Your task to perform on an android device: Search for pizza restaurants on Maps Image 0: 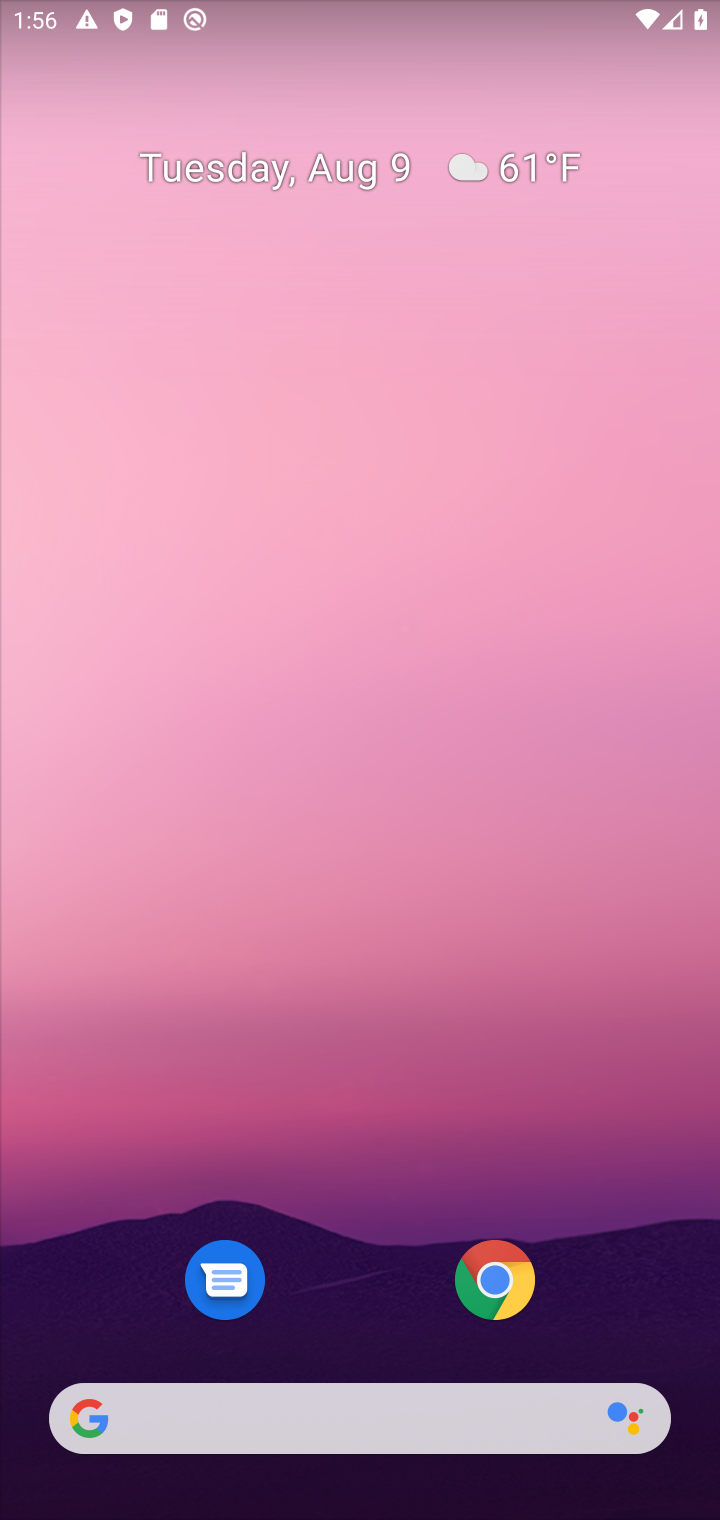
Step 0: press home button
Your task to perform on an android device: Search for pizza restaurants on Maps Image 1: 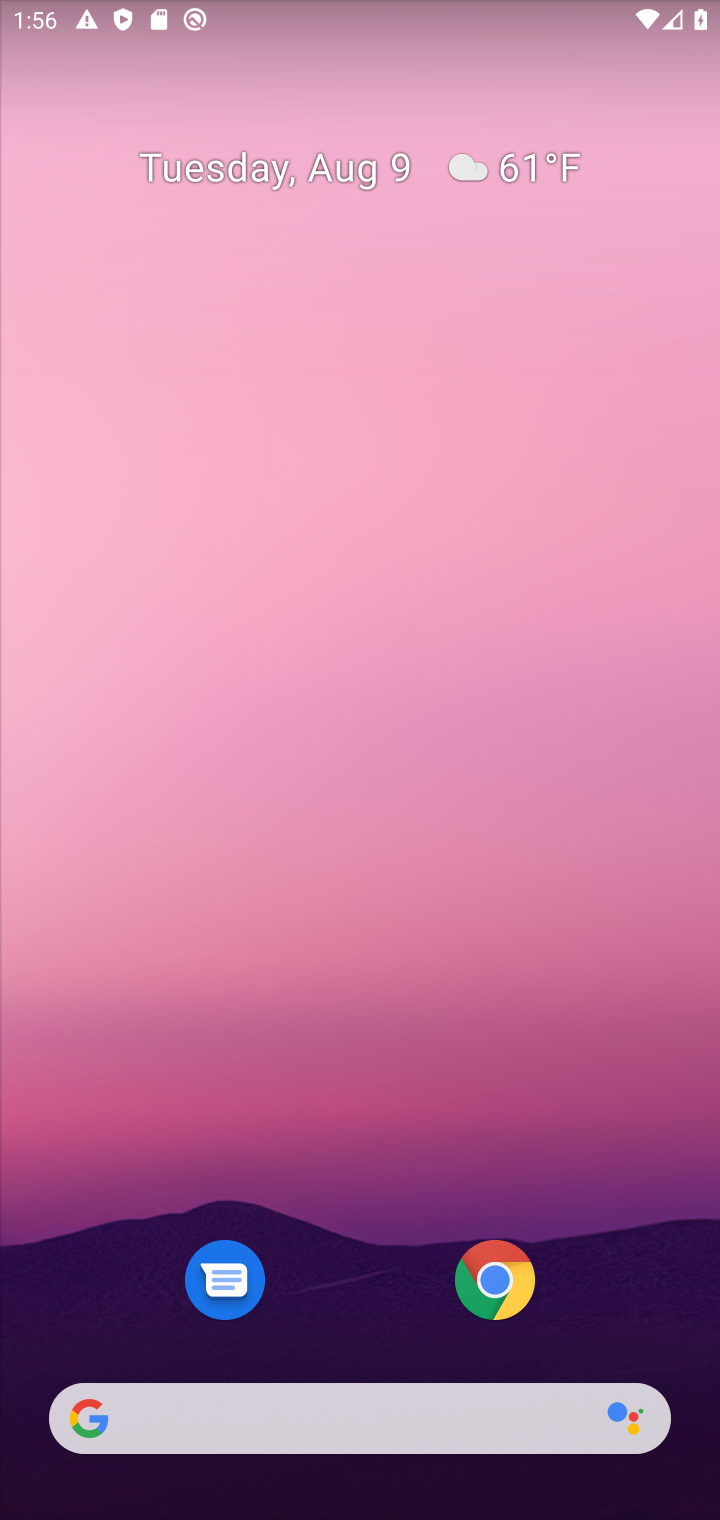
Step 1: drag from (268, 1417) to (482, 228)
Your task to perform on an android device: Search for pizza restaurants on Maps Image 2: 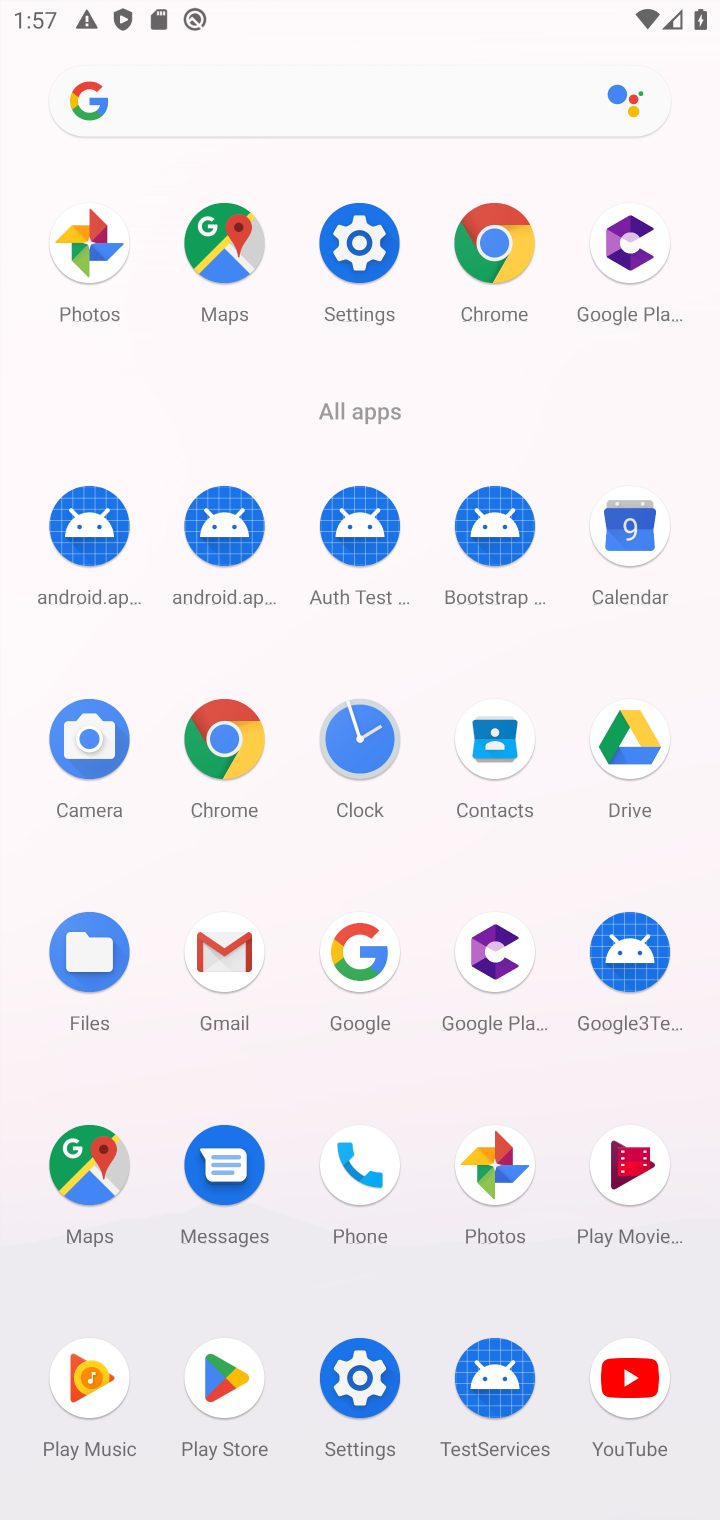
Step 2: click (219, 240)
Your task to perform on an android device: Search for pizza restaurants on Maps Image 3: 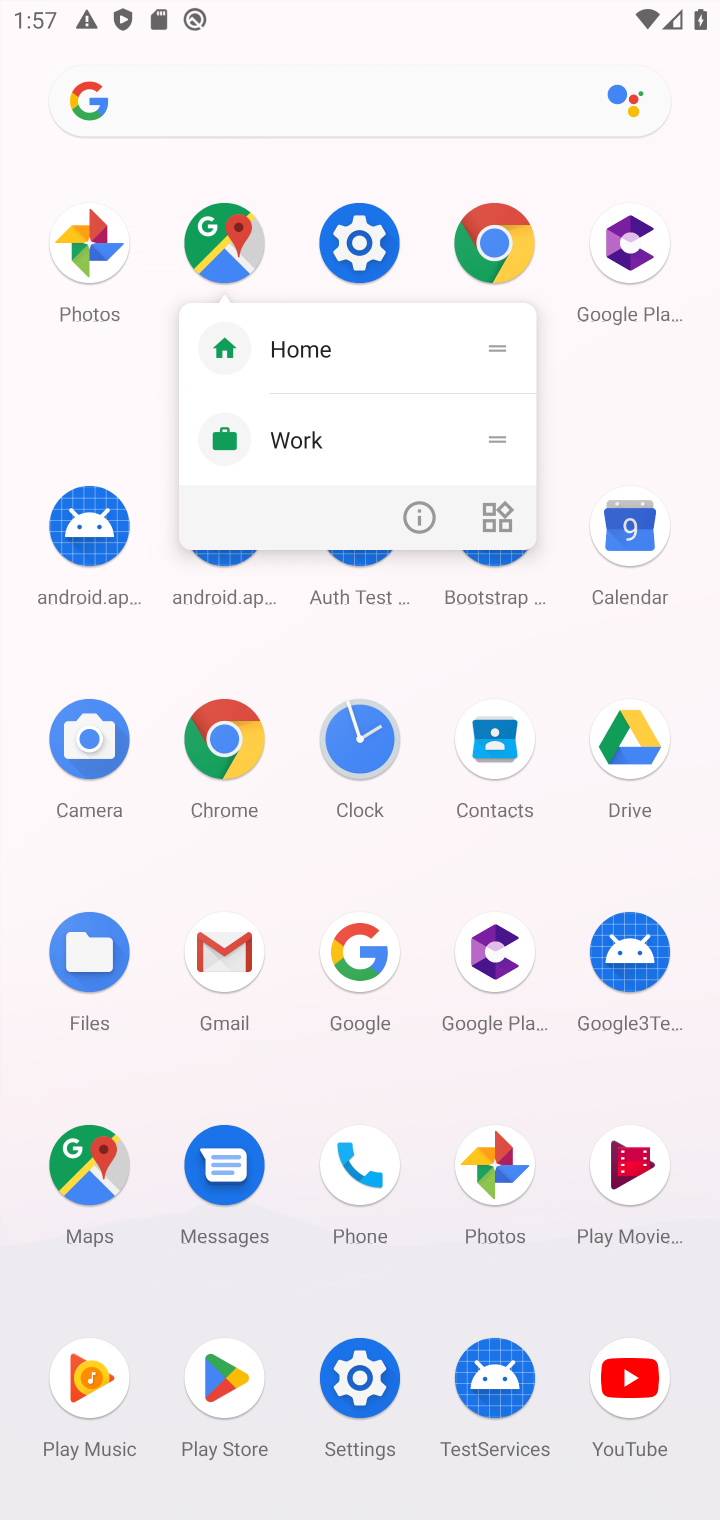
Step 3: click (219, 240)
Your task to perform on an android device: Search for pizza restaurants on Maps Image 4: 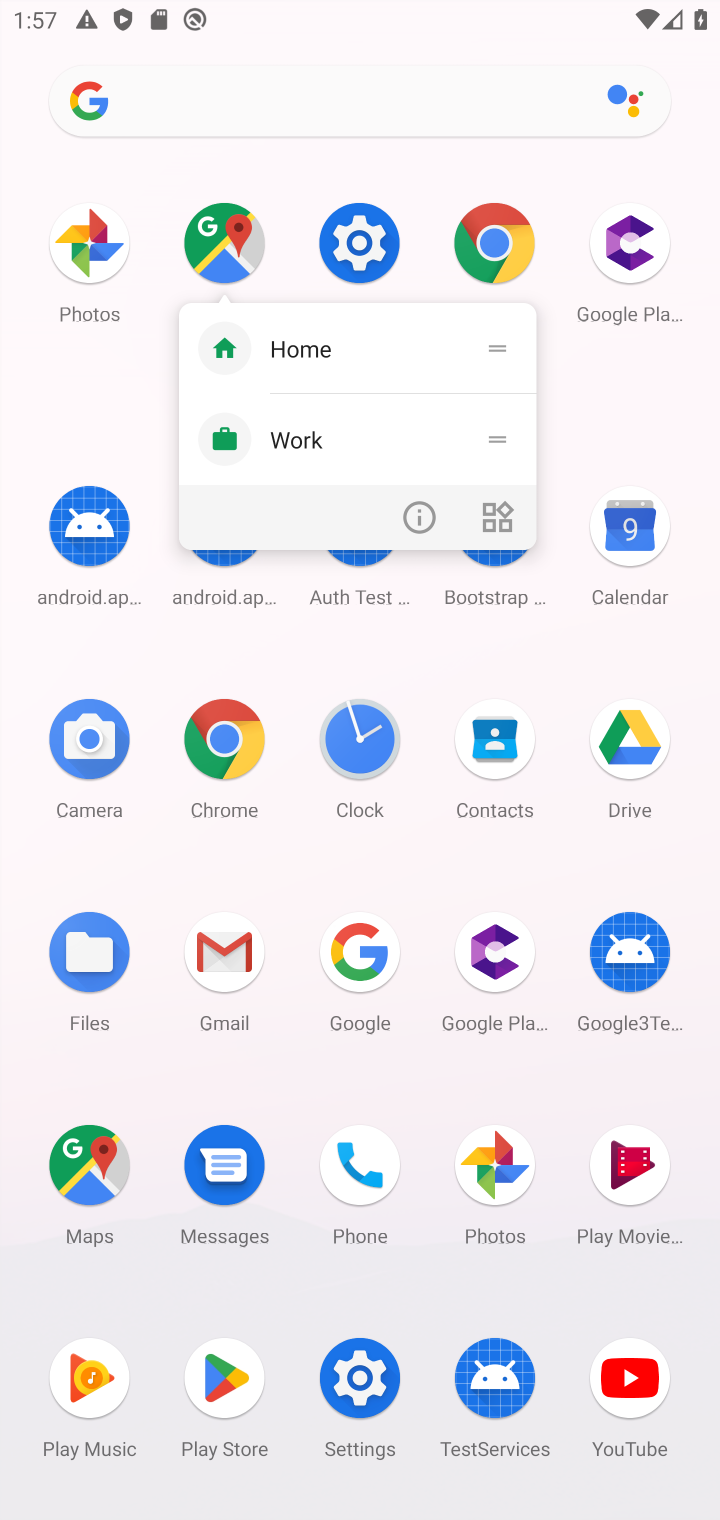
Step 4: click (219, 238)
Your task to perform on an android device: Search for pizza restaurants on Maps Image 5: 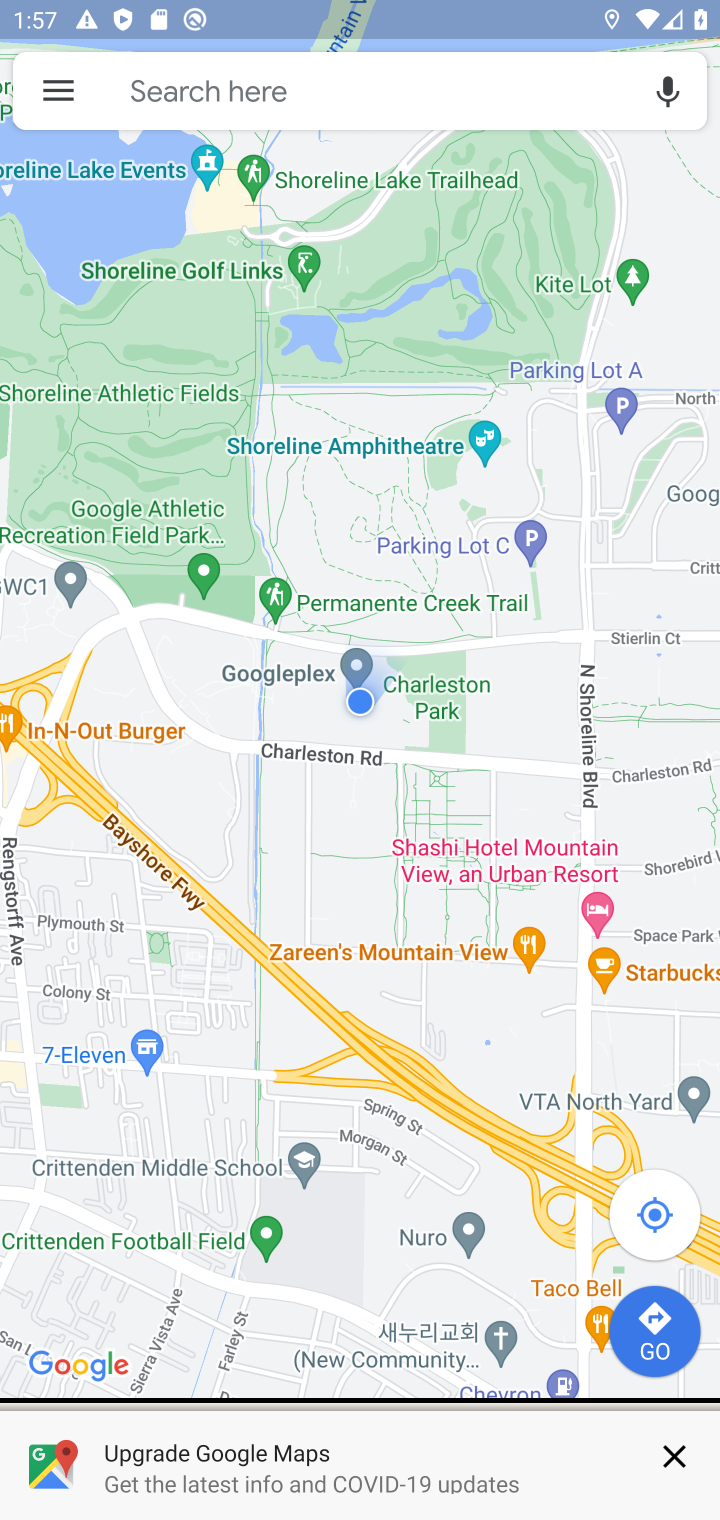
Step 5: click (320, 88)
Your task to perform on an android device: Search for pizza restaurants on Maps Image 6: 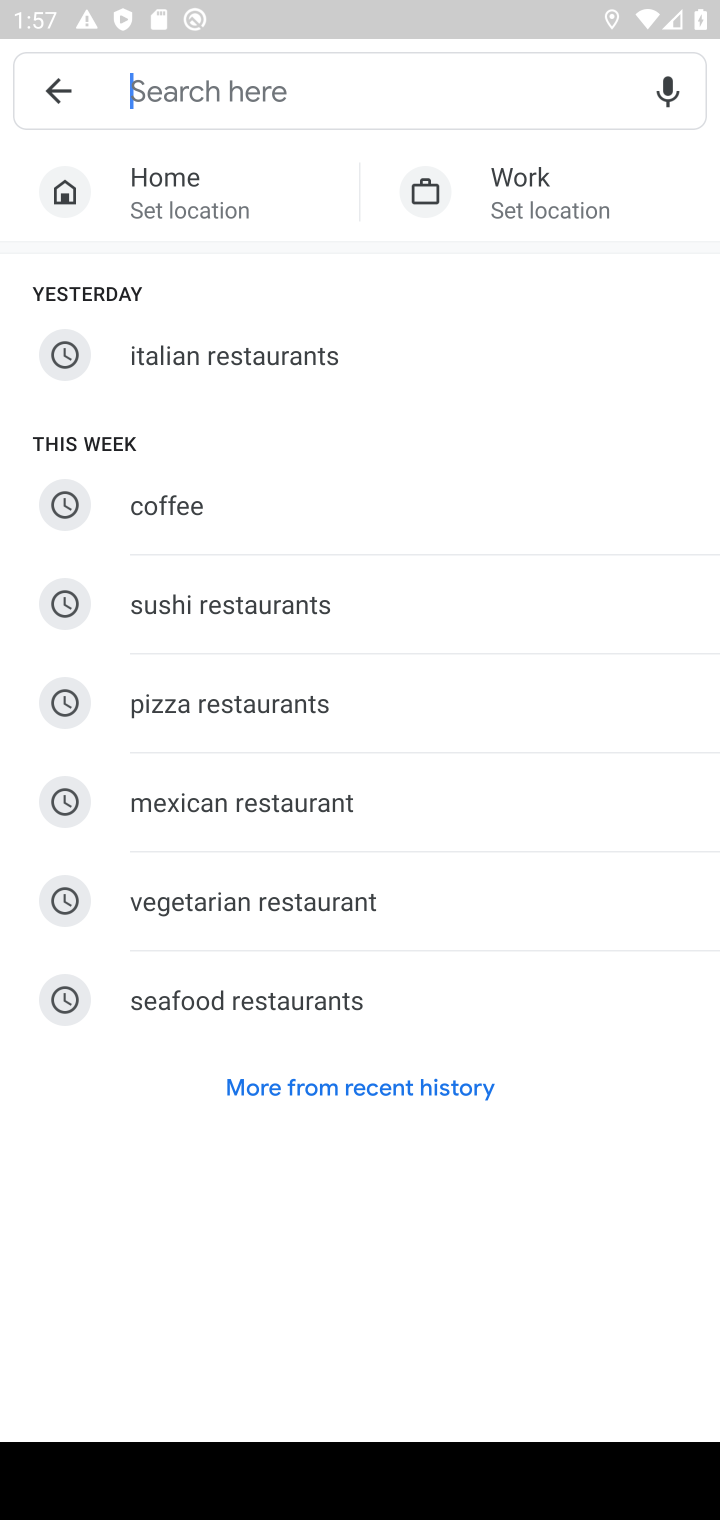
Step 6: click (239, 706)
Your task to perform on an android device: Search for pizza restaurants on Maps Image 7: 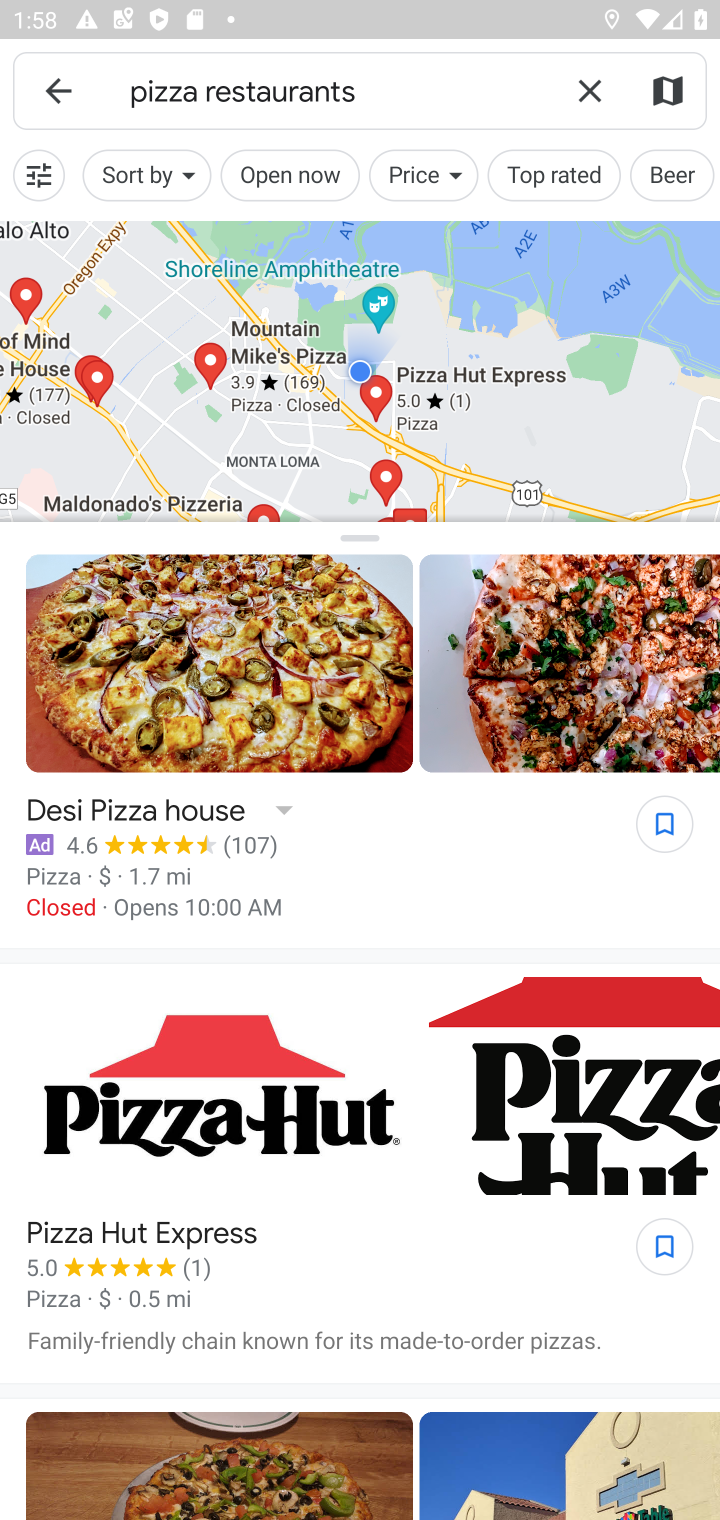
Step 7: task complete